Your task to perform on an android device: empty trash in the gmail app Image 0: 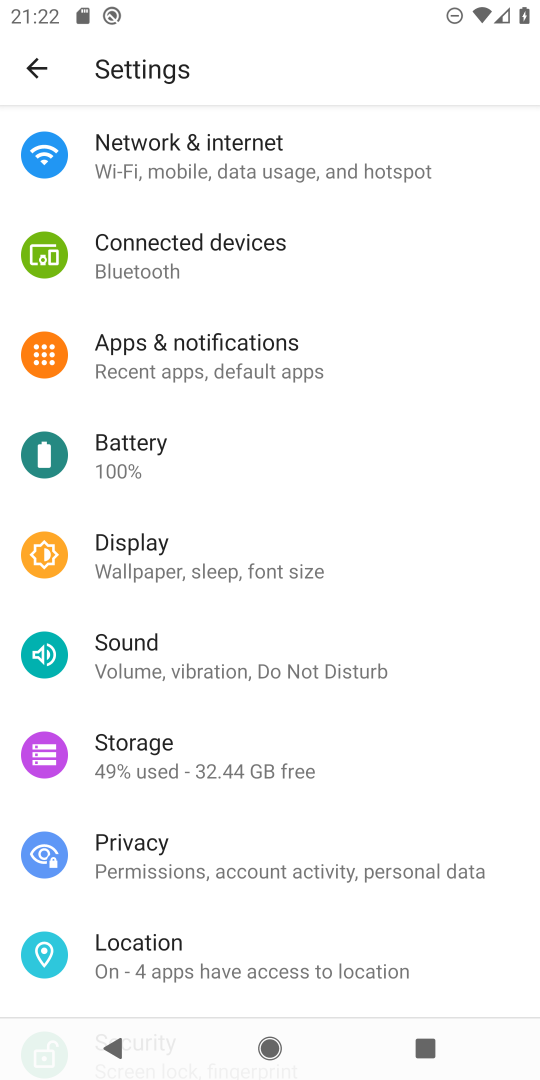
Step 0: press home button
Your task to perform on an android device: empty trash in the gmail app Image 1: 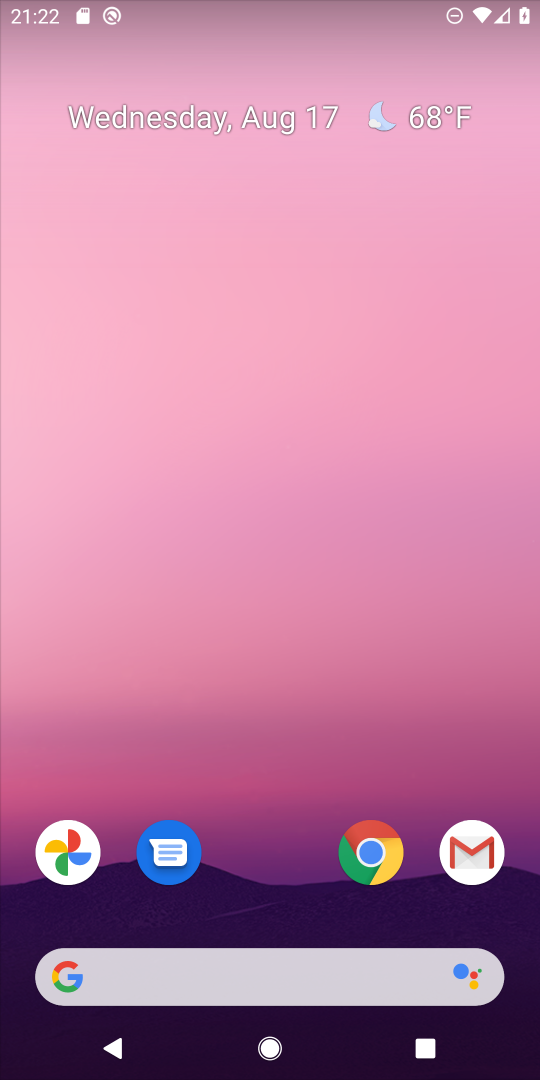
Step 1: click (470, 859)
Your task to perform on an android device: empty trash in the gmail app Image 2: 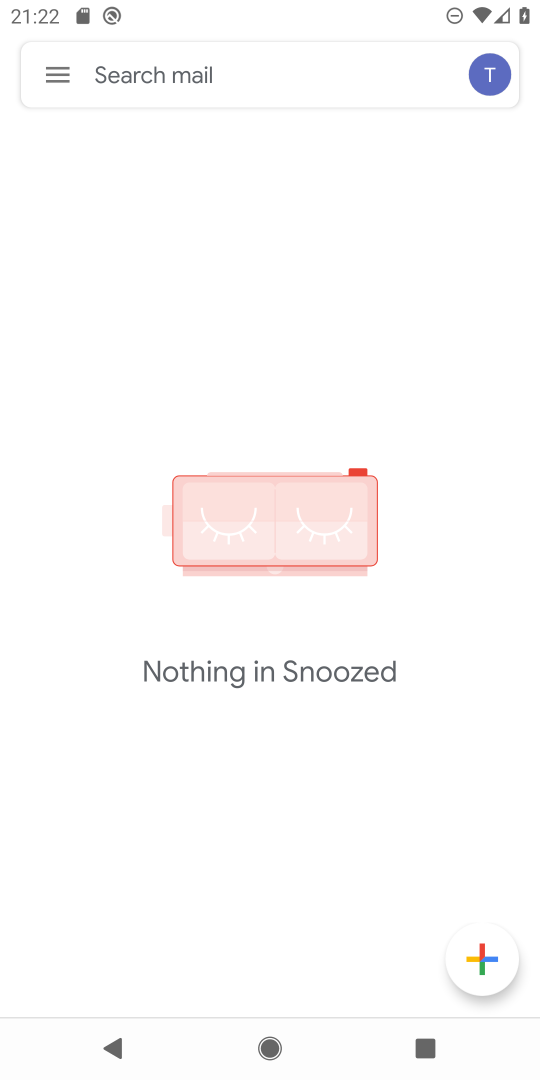
Step 2: click (55, 63)
Your task to perform on an android device: empty trash in the gmail app Image 3: 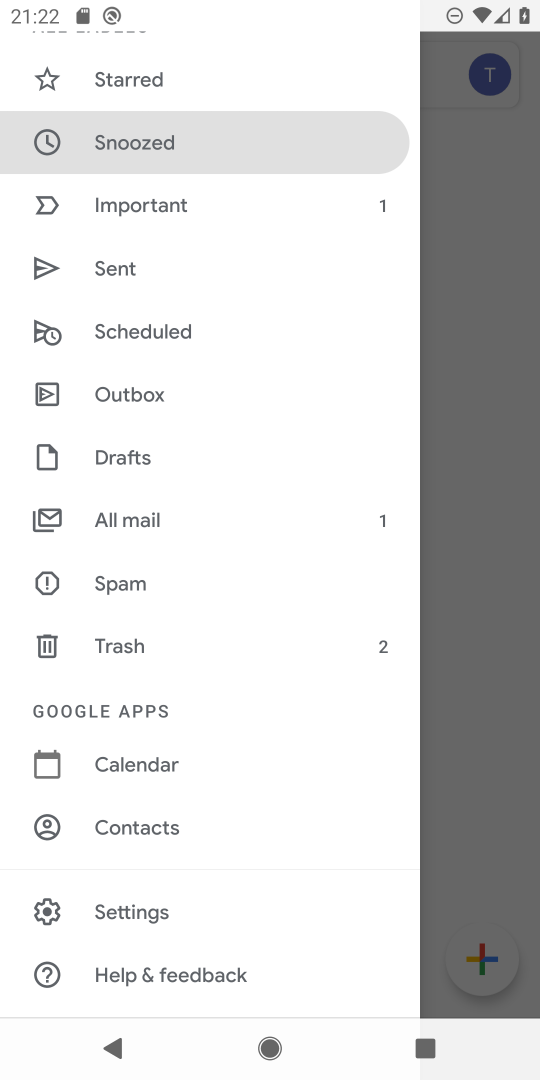
Step 3: click (116, 644)
Your task to perform on an android device: empty trash in the gmail app Image 4: 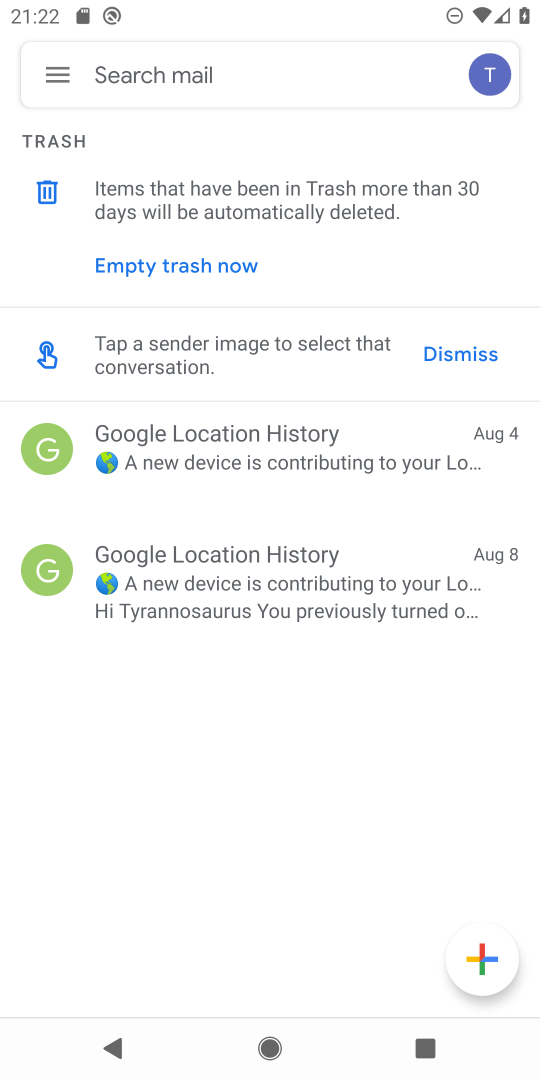
Step 4: click (146, 260)
Your task to perform on an android device: empty trash in the gmail app Image 5: 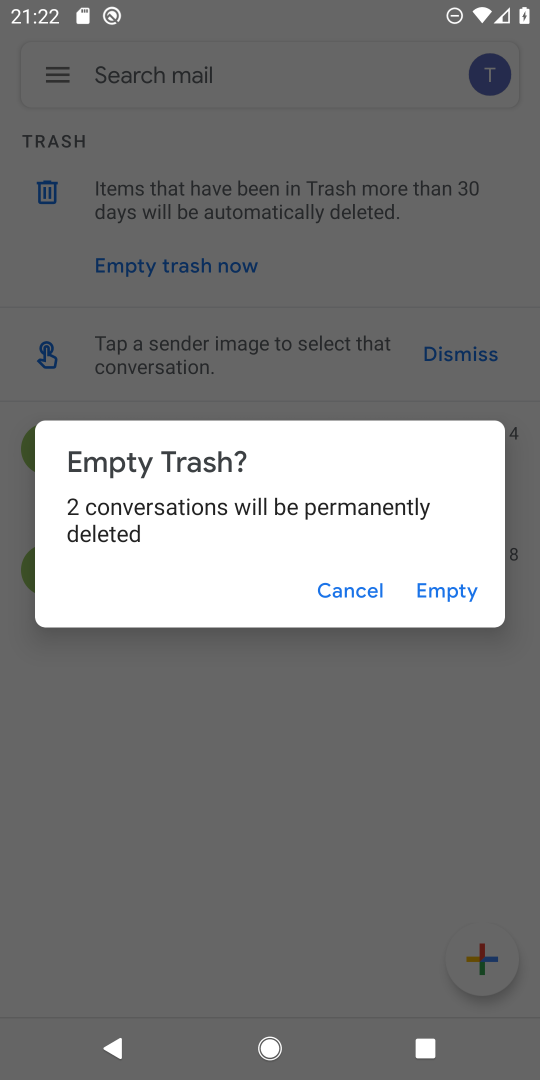
Step 5: click (424, 578)
Your task to perform on an android device: empty trash in the gmail app Image 6: 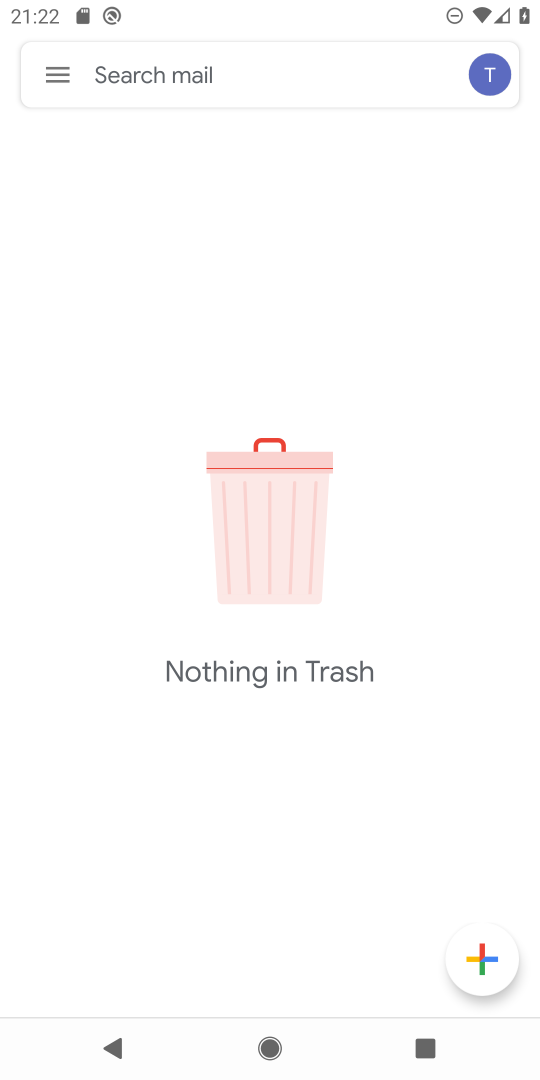
Step 6: task complete